Your task to perform on an android device: Open calendar and show me the third week of next month Image 0: 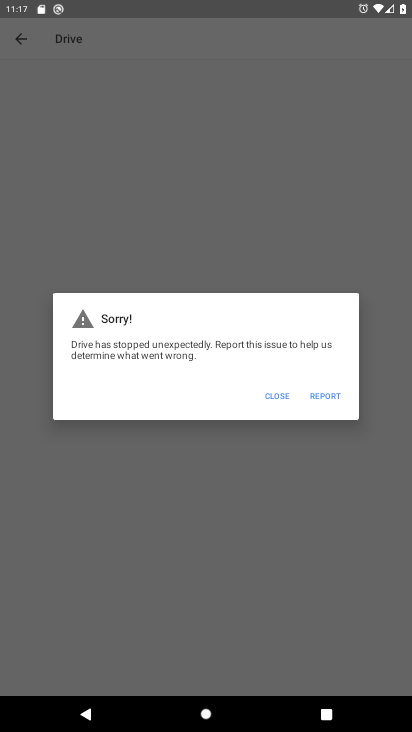
Step 0: press home button
Your task to perform on an android device: Open calendar and show me the third week of next month Image 1: 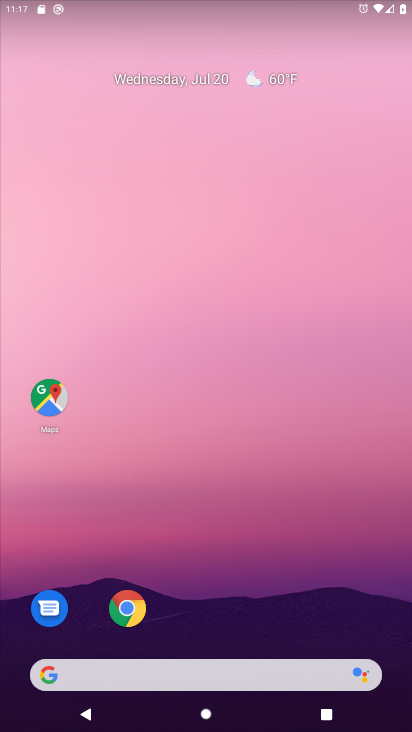
Step 1: drag from (277, 567) to (287, 9)
Your task to perform on an android device: Open calendar and show me the third week of next month Image 2: 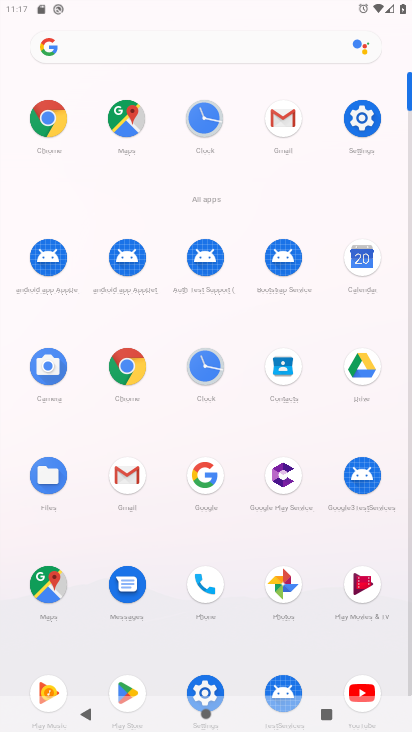
Step 2: click (359, 268)
Your task to perform on an android device: Open calendar and show me the third week of next month Image 3: 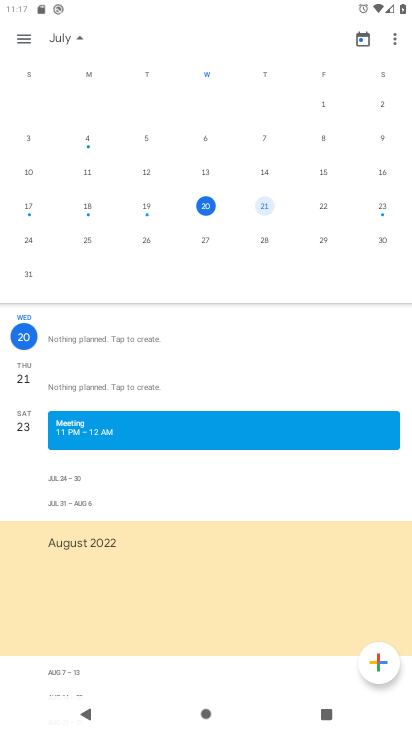
Step 3: drag from (405, 186) to (51, 160)
Your task to perform on an android device: Open calendar and show me the third week of next month Image 4: 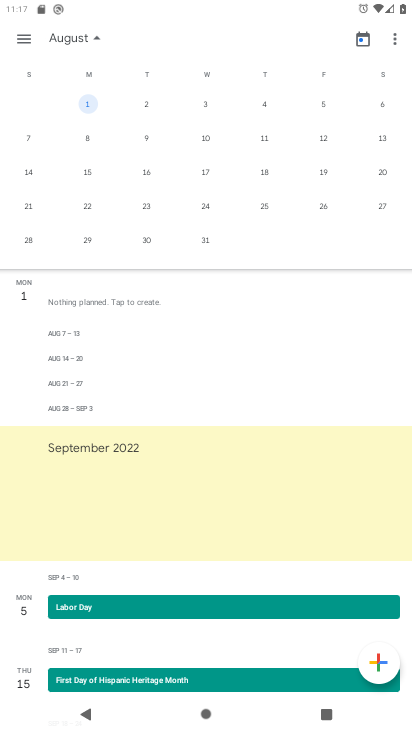
Step 4: click (32, 175)
Your task to perform on an android device: Open calendar and show me the third week of next month Image 5: 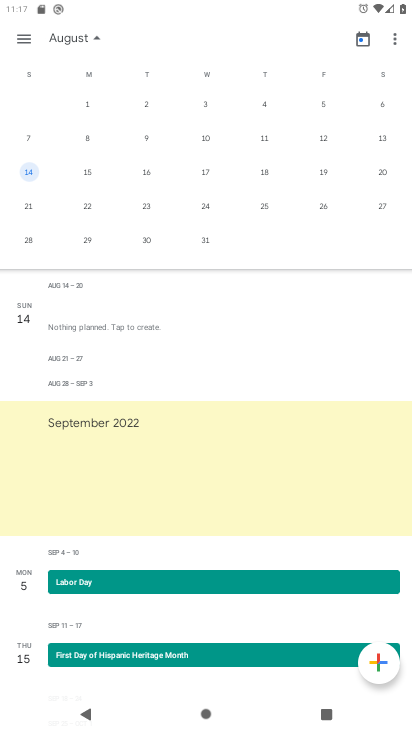
Step 5: task complete